Your task to perform on an android device: Open the web browser Image 0: 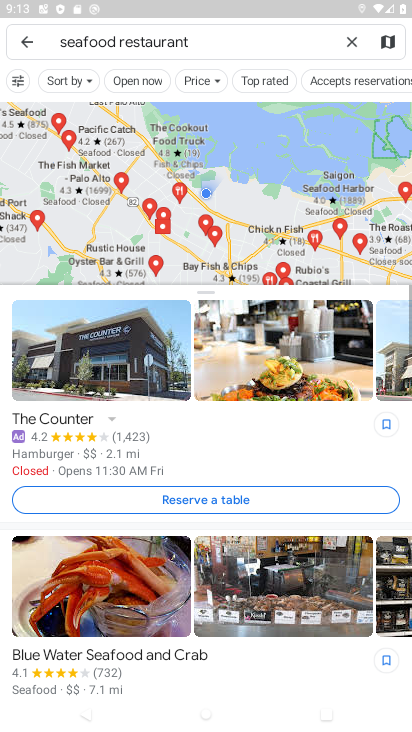
Step 0: press home button
Your task to perform on an android device: Open the web browser Image 1: 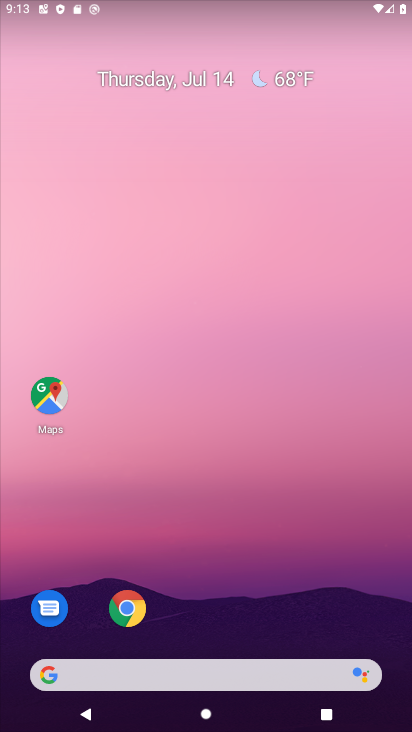
Step 1: drag from (194, 678) to (234, 30)
Your task to perform on an android device: Open the web browser Image 2: 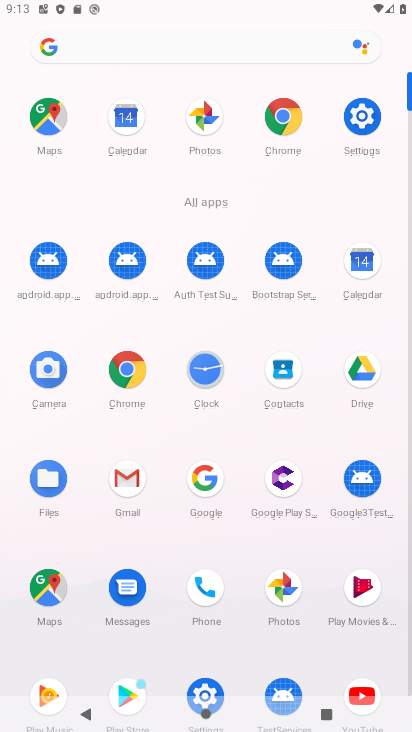
Step 2: click (279, 117)
Your task to perform on an android device: Open the web browser Image 3: 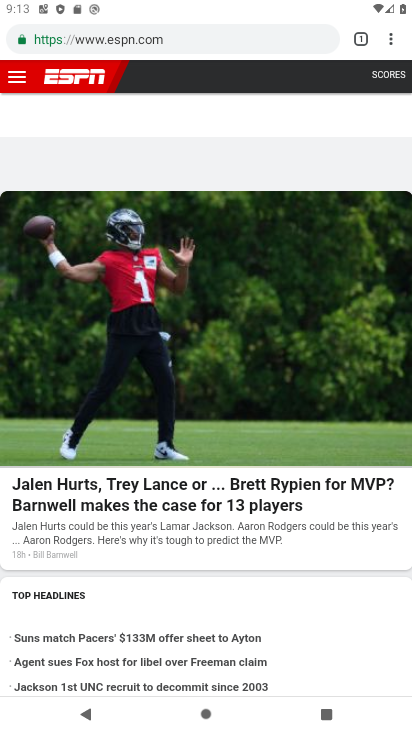
Step 3: task complete